Your task to perform on an android device: Open eBay Image 0: 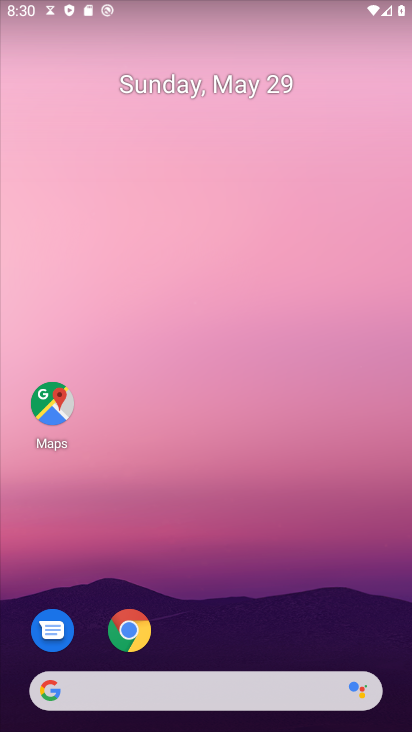
Step 0: click (133, 621)
Your task to perform on an android device: Open eBay Image 1: 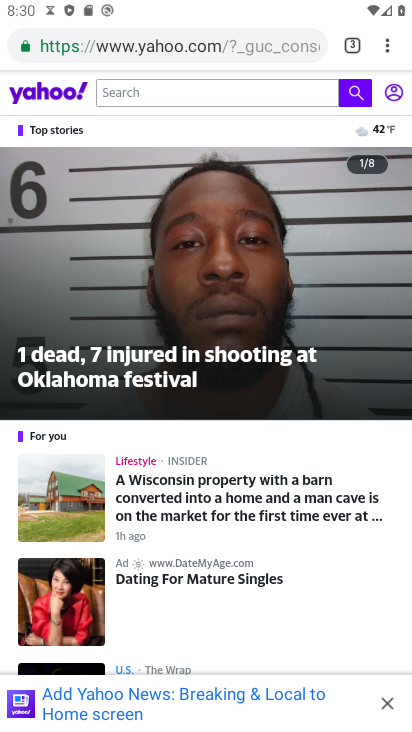
Step 1: click (351, 48)
Your task to perform on an android device: Open eBay Image 2: 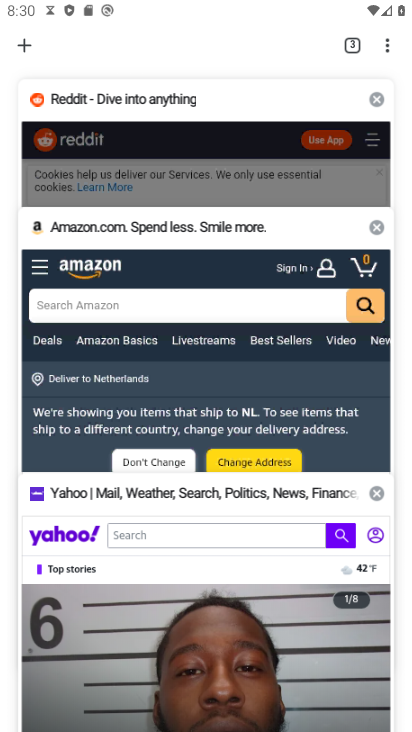
Step 2: click (26, 44)
Your task to perform on an android device: Open eBay Image 3: 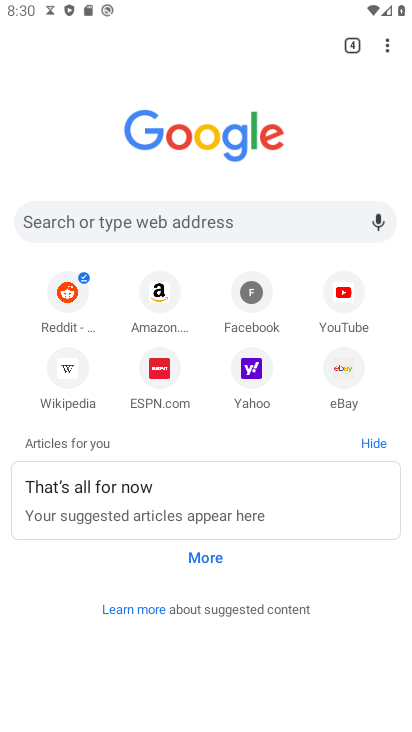
Step 3: click (350, 370)
Your task to perform on an android device: Open eBay Image 4: 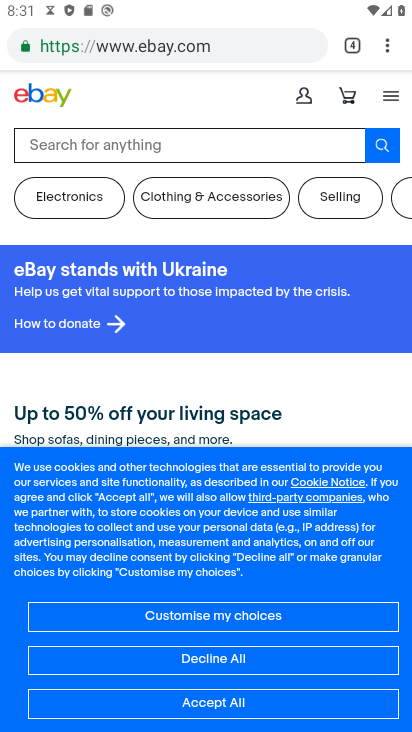
Step 4: task complete